Your task to perform on an android device: open chrome and create a bookmark for the current page Image 0: 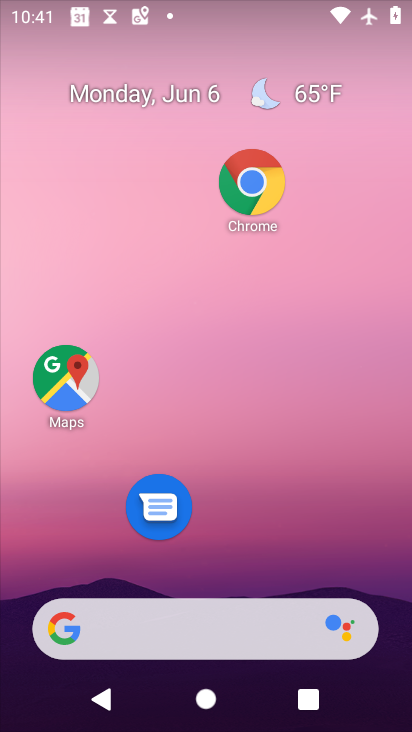
Step 0: click (243, 186)
Your task to perform on an android device: open chrome and create a bookmark for the current page Image 1: 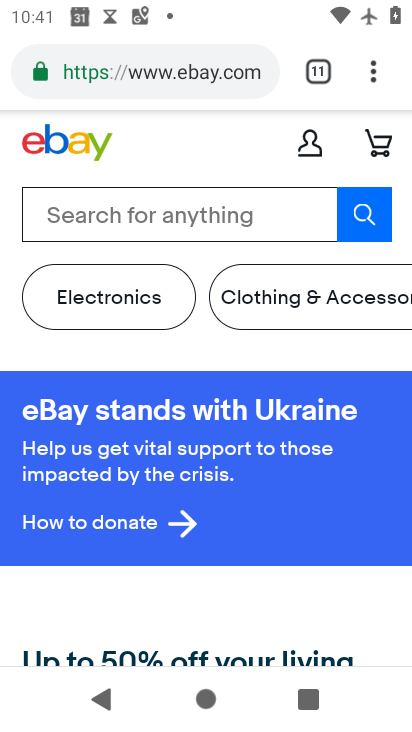
Step 1: click (351, 73)
Your task to perform on an android device: open chrome and create a bookmark for the current page Image 2: 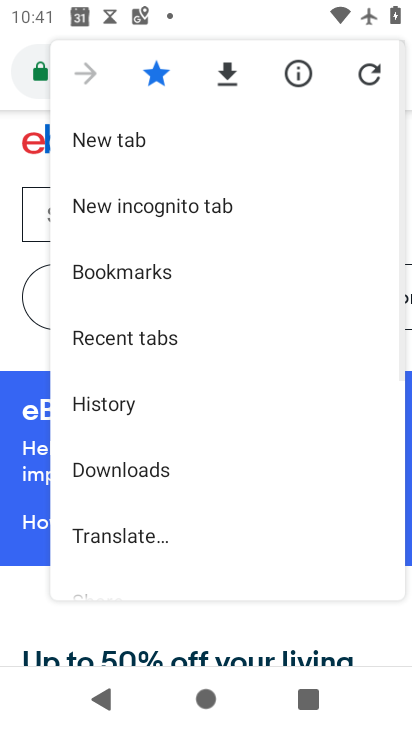
Step 2: click (161, 65)
Your task to perform on an android device: open chrome and create a bookmark for the current page Image 3: 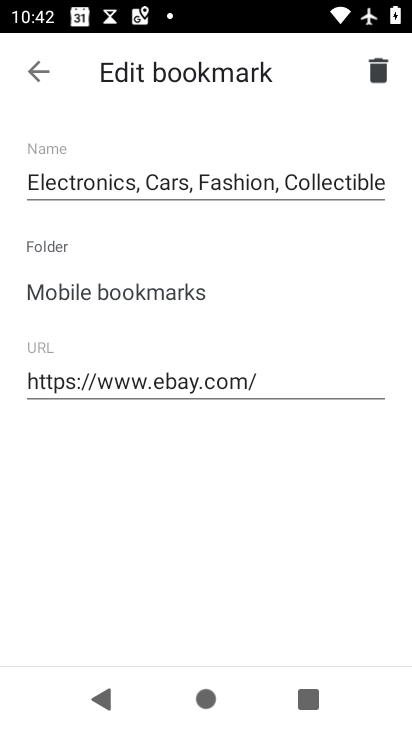
Step 3: click (43, 66)
Your task to perform on an android device: open chrome and create a bookmark for the current page Image 4: 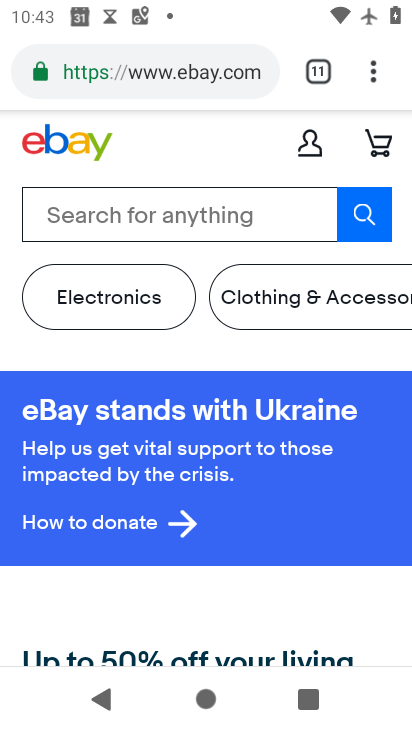
Step 4: task complete